Your task to perform on an android device: Open the stopwatch Image 0: 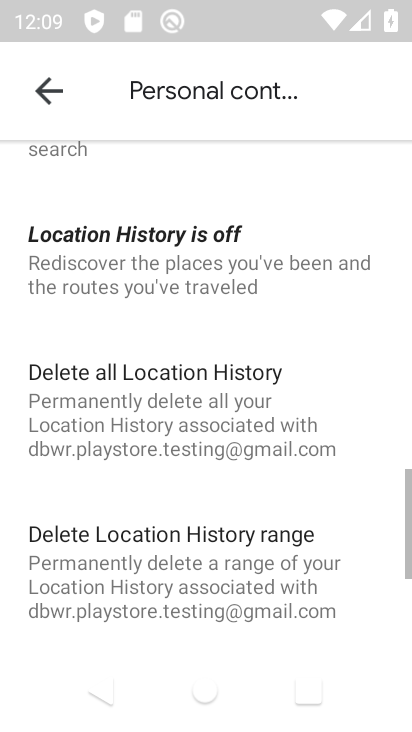
Step 0: press home button
Your task to perform on an android device: Open the stopwatch Image 1: 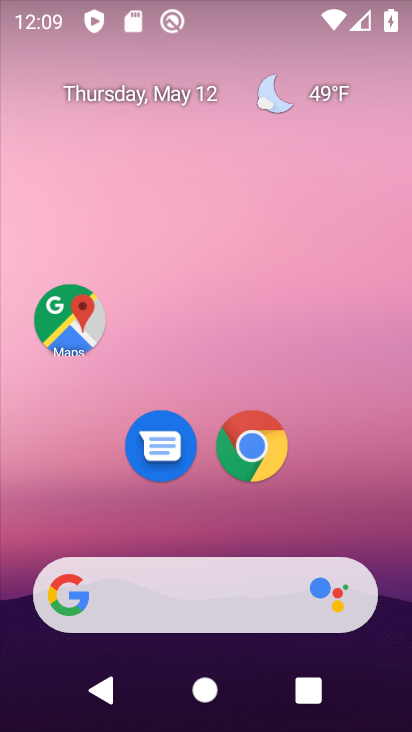
Step 1: drag from (303, 433) to (306, 173)
Your task to perform on an android device: Open the stopwatch Image 2: 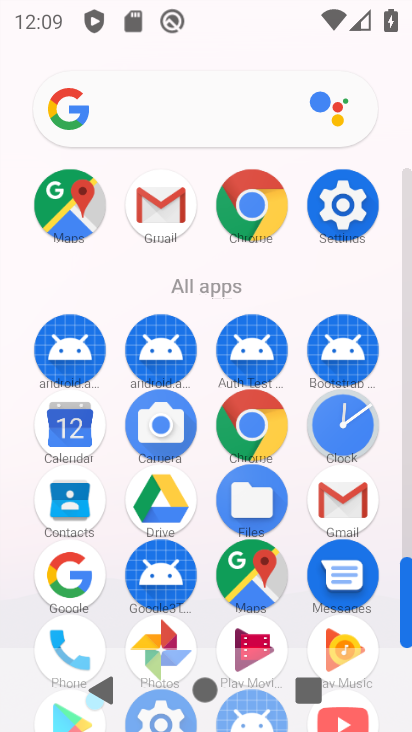
Step 2: click (328, 425)
Your task to perform on an android device: Open the stopwatch Image 3: 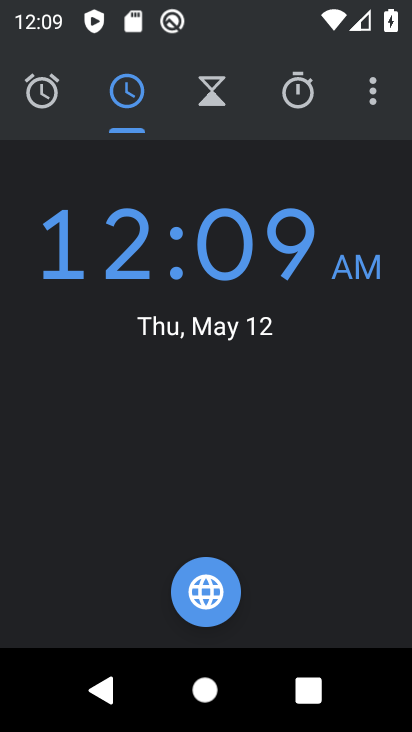
Step 3: click (299, 112)
Your task to perform on an android device: Open the stopwatch Image 4: 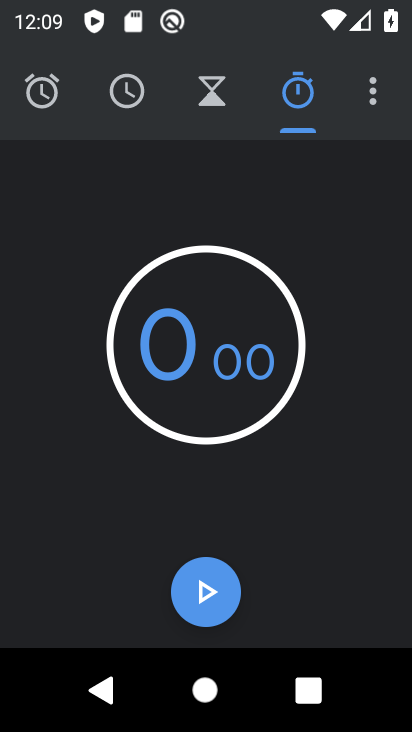
Step 4: task complete